Your task to perform on an android device: choose inbox layout in the gmail app Image 0: 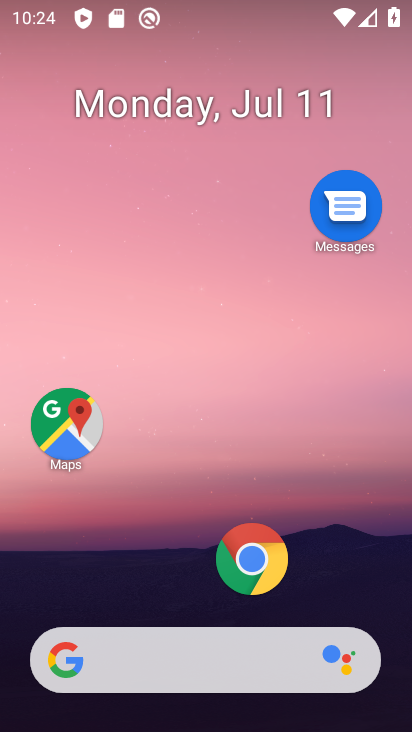
Step 0: drag from (356, 595) to (365, 185)
Your task to perform on an android device: choose inbox layout in the gmail app Image 1: 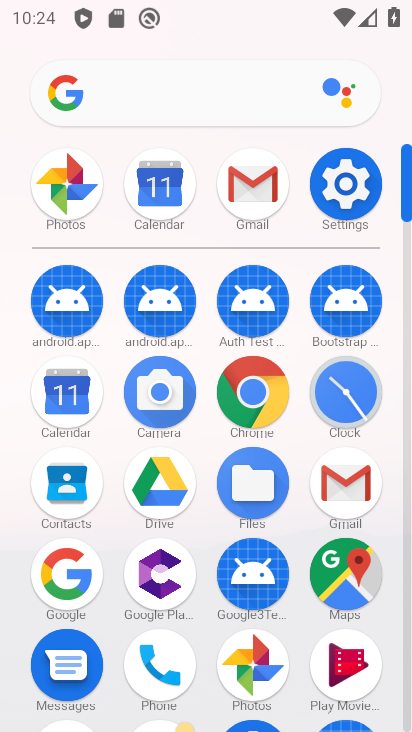
Step 1: click (358, 480)
Your task to perform on an android device: choose inbox layout in the gmail app Image 2: 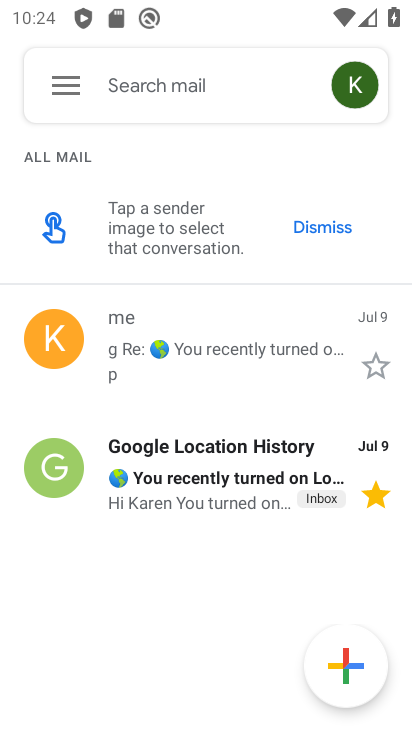
Step 2: click (74, 100)
Your task to perform on an android device: choose inbox layout in the gmail app Image 3: 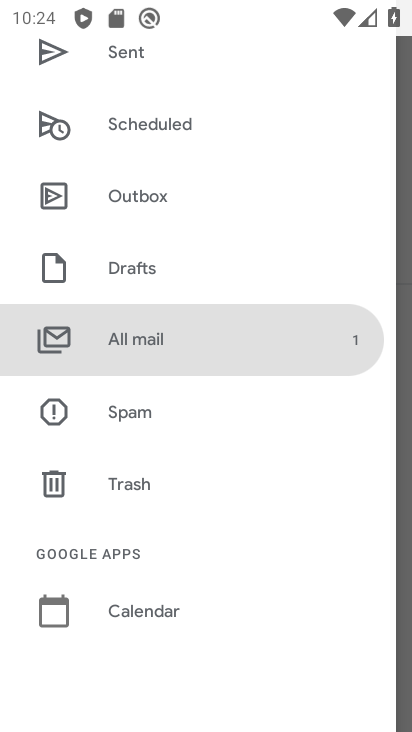
Step 3: drag from (264, 549) to (265, 413)
Your task to perform on an android device: choose inbox layout in the gmail app Image 4: 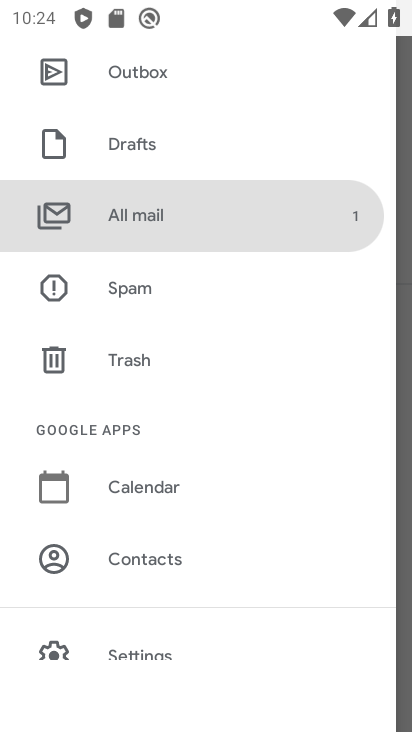
Step 4: drag from (272, 560) to (266, 436)
Your task to perform on an android device: choose inbox layout in the gmail app Image 5: 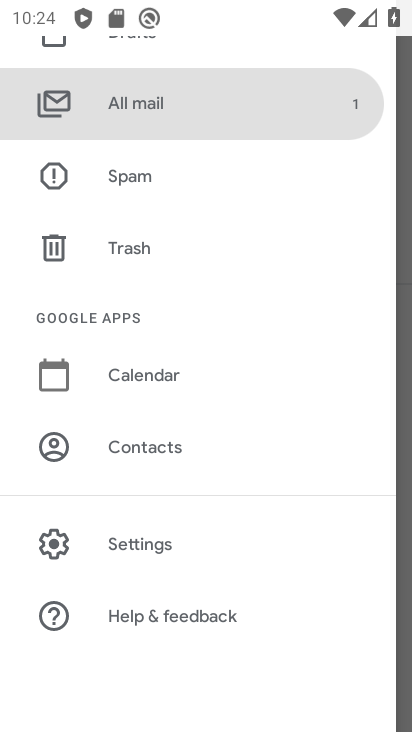
Step 5: click (241, 557)
Your task to perform on an android device: choose inbox layout in the gmail app Image 6: 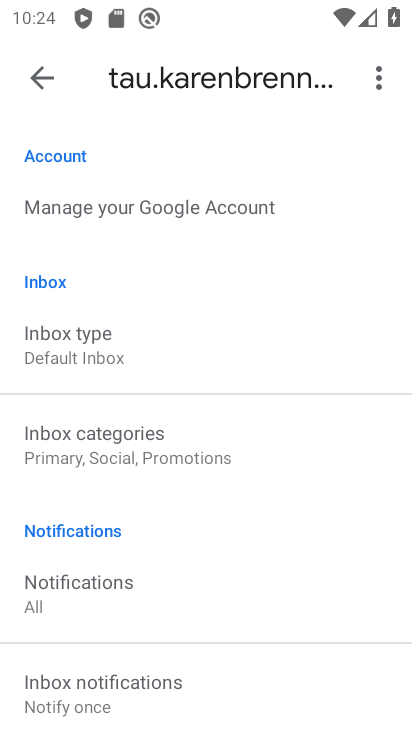
Step 6: drag from (258, 576) to (275, 449)
Your task to perform on an android device: choose inbox layout in the gmail app Image 7: 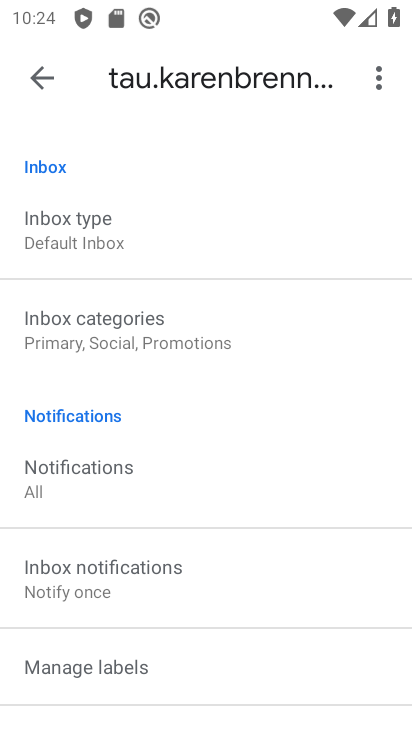
Step 7: drag from (296, 570) to (306, 388)
Your task to perform on an android device: choose inbox layout in the gmail app Image 8: 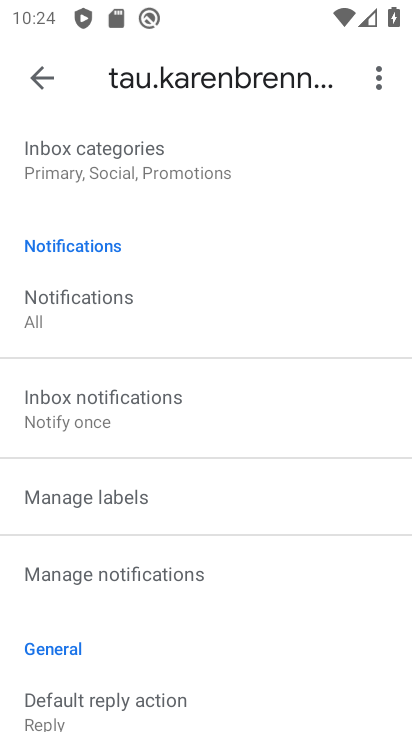
Step 8: drag from (287, 204) to (292, 316)
Your task to perform on an android device: choose inbox layout in the gmail app Image 9: 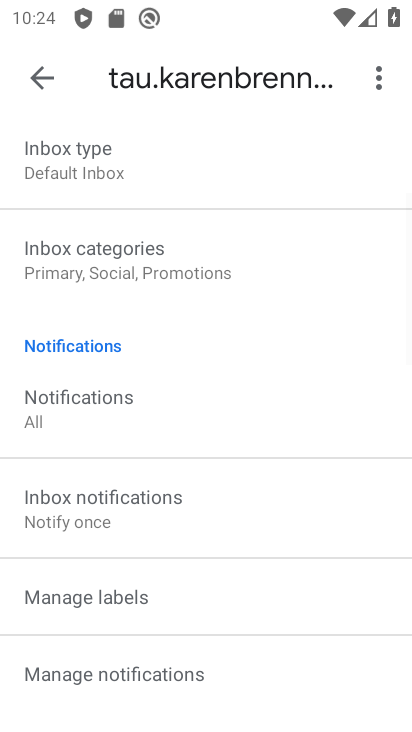
Step 9: drag from (271, 165) to (288, 342)
Your task to perform on an android device: choose inbox layout in the gmail app Image 10: 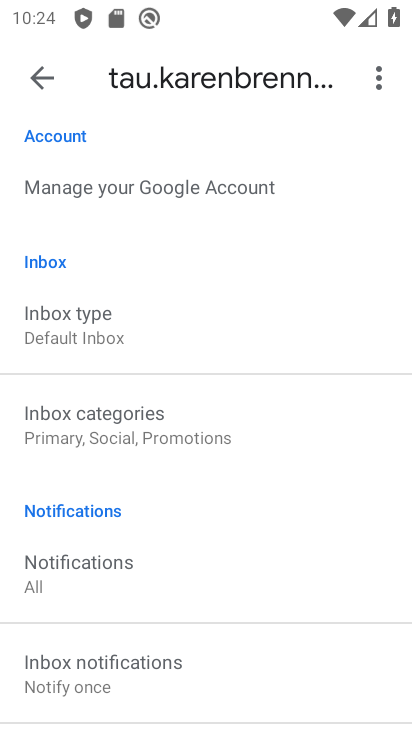
Step 10: click (101, 325)
Your task to perform on an android device: choose inbox layout in the gmail app Image 11: 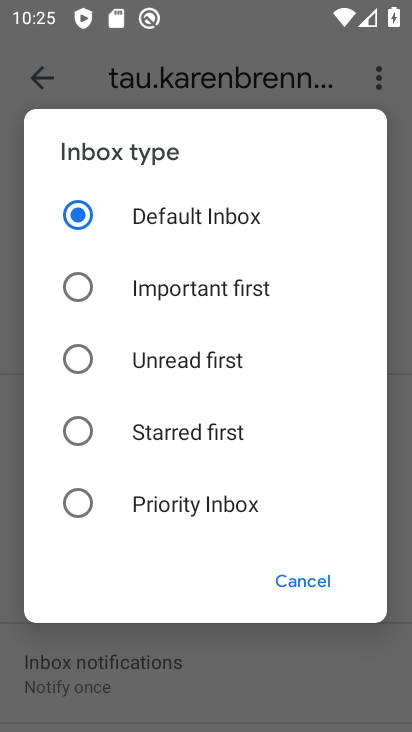
Step 11: click (173, 289)
Your task to perform on an android device: choose inbox layout in the gmail app Image 12: 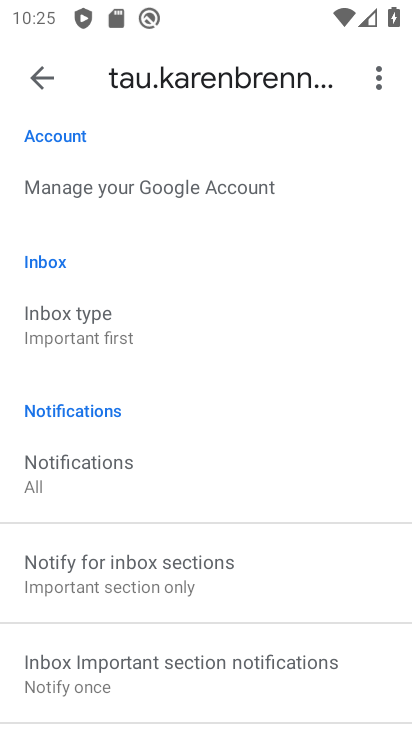
Step 12: task complete